Your task to perform on an android device: check battery use Image 0: 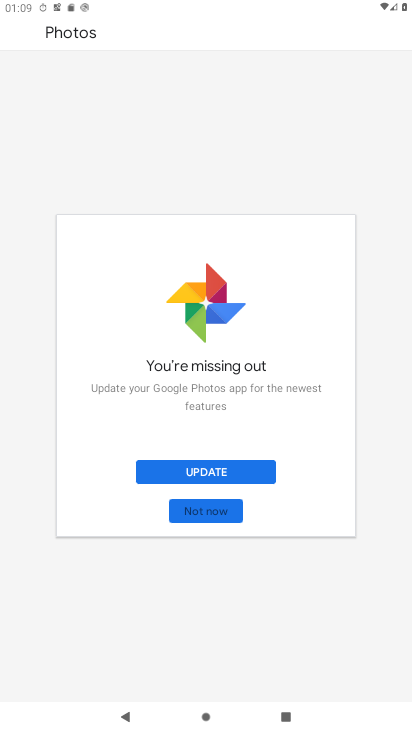
Step 0: press home button
Your task to perform on an android device: check battery use Image 1: 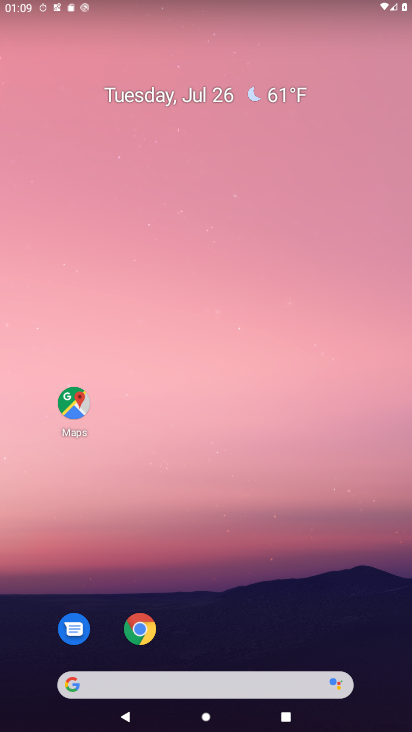
Step 1: drag from (205, 607) to (192, 96)
Your task to perform on an android device: check battery use Image 2: 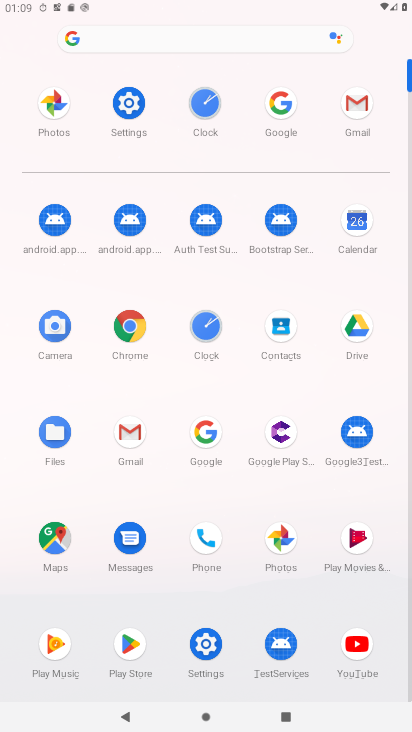
Step 2: click (135, 114)
Your task to perform on an android device: check battery use Image 3: 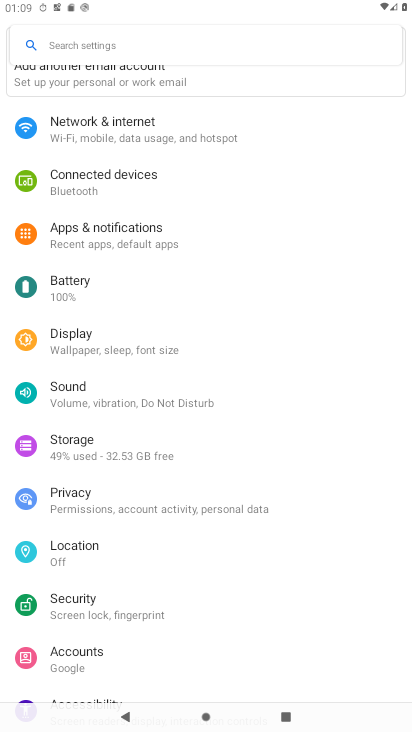
Step 3: click (101, 280)
Your task to perform on an android device: check battery use Image 4: 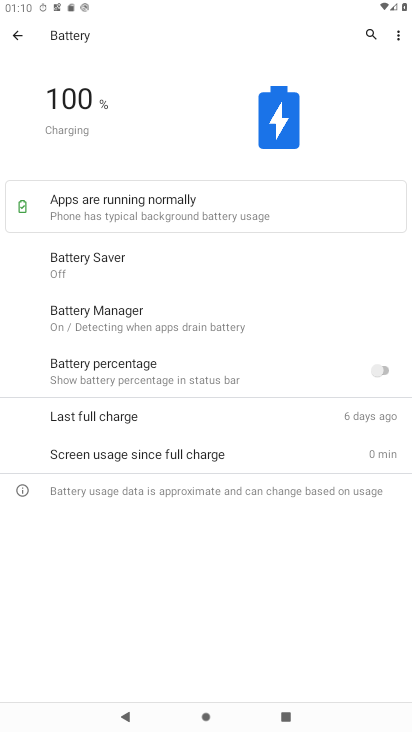
Step 4: click (393, 37)
Your task to perform on an android device: check battery use Image 5: 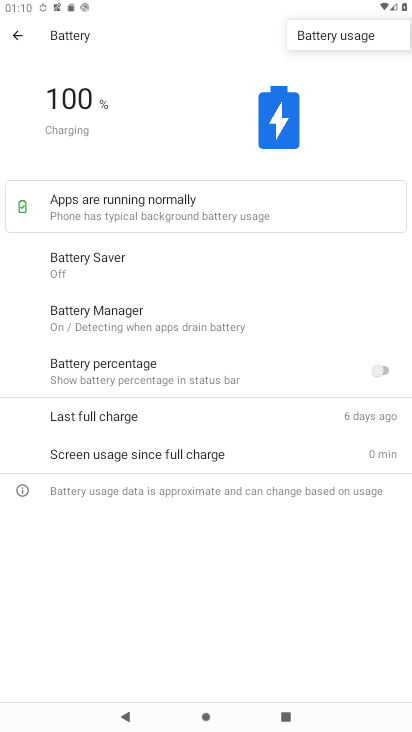
Step 5: click (373, 37)
Your task to perform on an android device: check battery use Image 6: 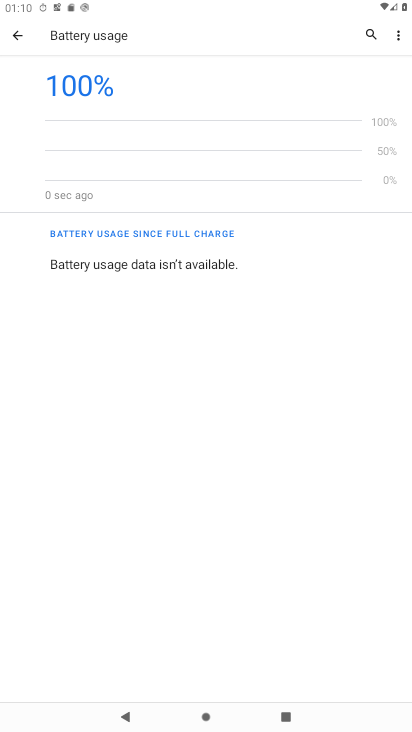
Step 6: task complete